Your task to perform on an android device: Turn on the flashlight Image 0: 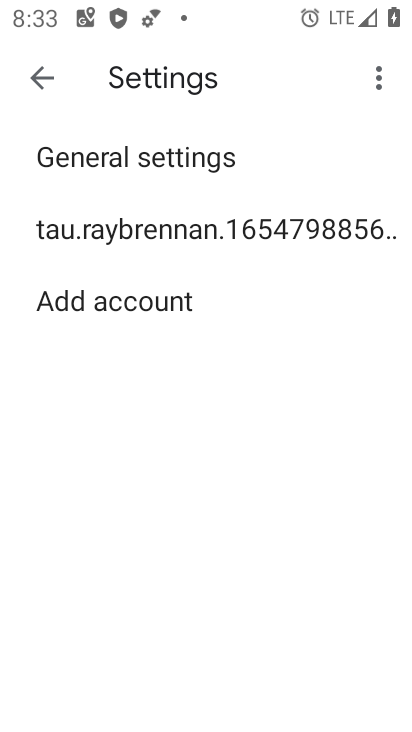
Step 0: press home button
Your task to perform on an android device: Turn on the flashlight Image 1: 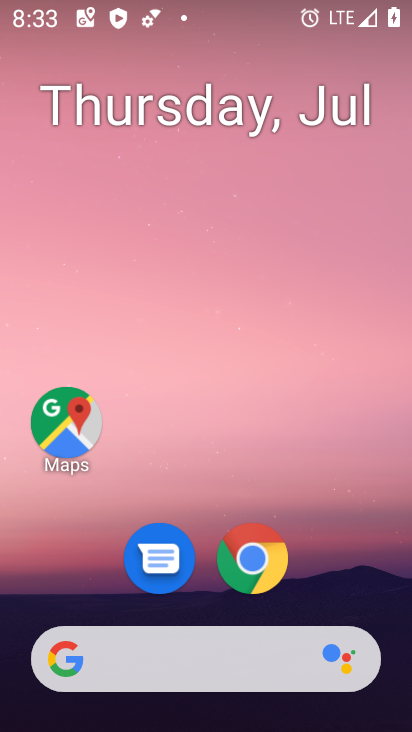
Step 1: task complete